Your task to perform on an android device: change your default location settings in chrome Image 0: 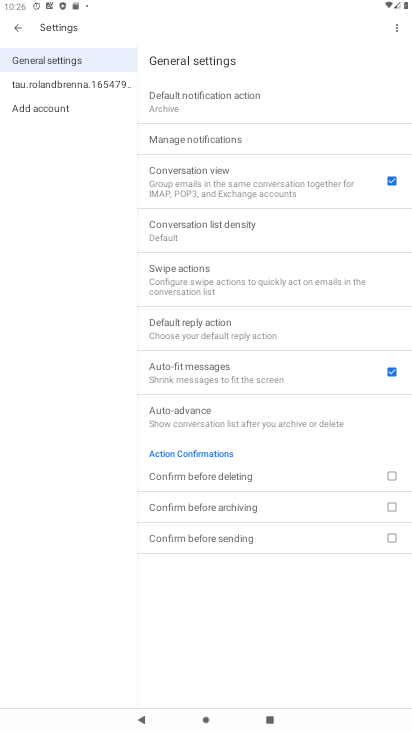
Step 0: press home button
Your task to perform on an android device: change your default location settings in chrome Image 1: 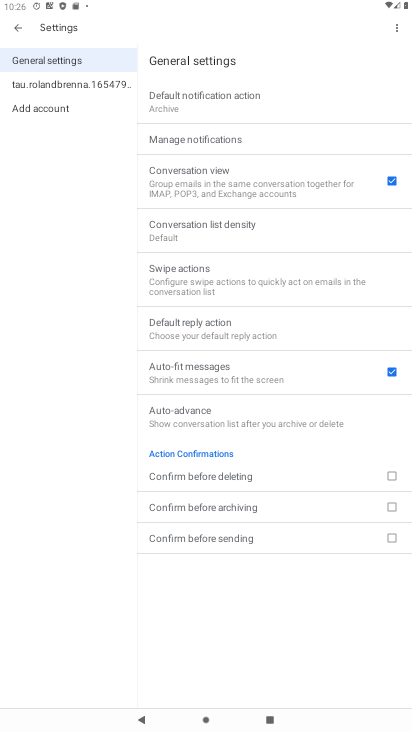
Step 1: press home button
Your task to perform on an android device: change your default location settings in chrome Image 2: 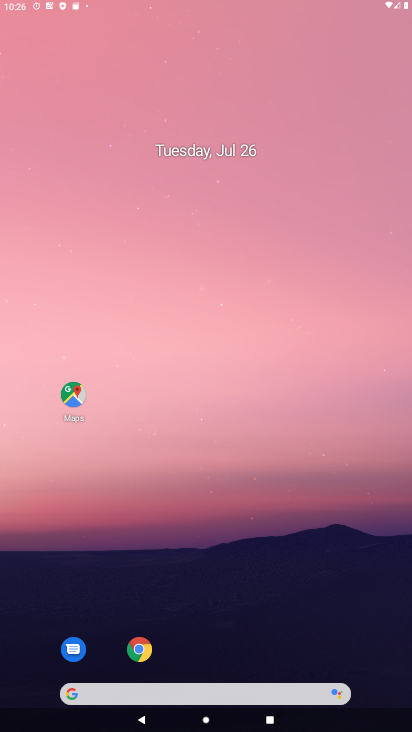
Step 2: drag from (200, 605) to (262, 119)
Your task to perform on an android device: change your default location settings in chrome Image 3: 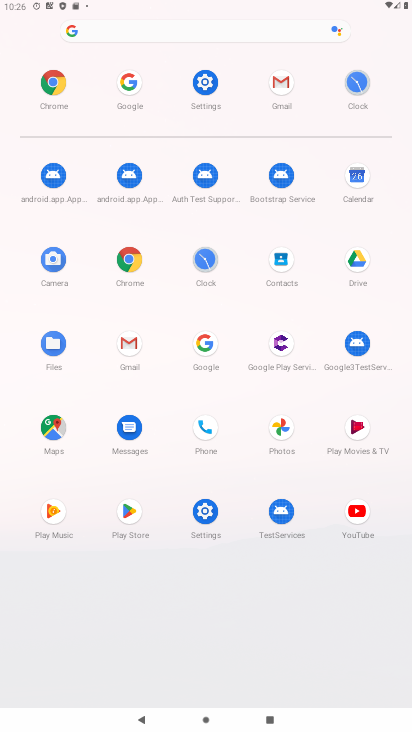
Step 3: click (125, 256)
Your task to perform on an android device: change your default location settings in chrome Image 4: 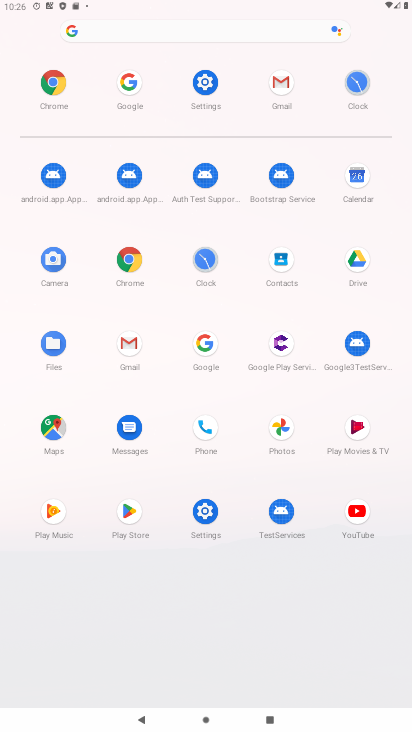
Step 4: click (125, 256)
Your task to perform on an android device: change your default location settings in chrome Image 5: 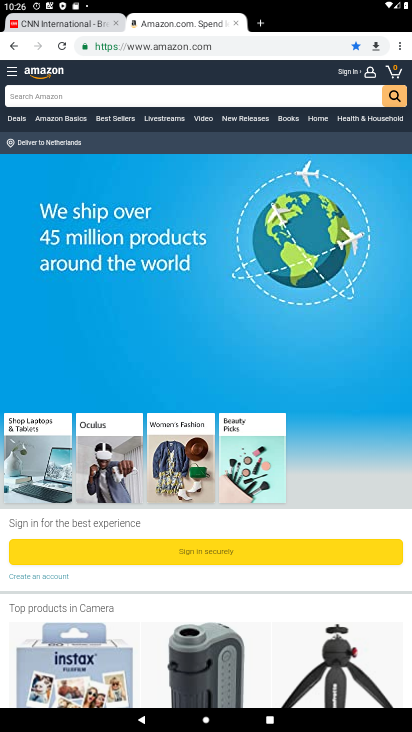
Step 5: drag from (192, 539) to (232, 227)
Your task to perform on an android device: change your default location settings in chrome Image 6: 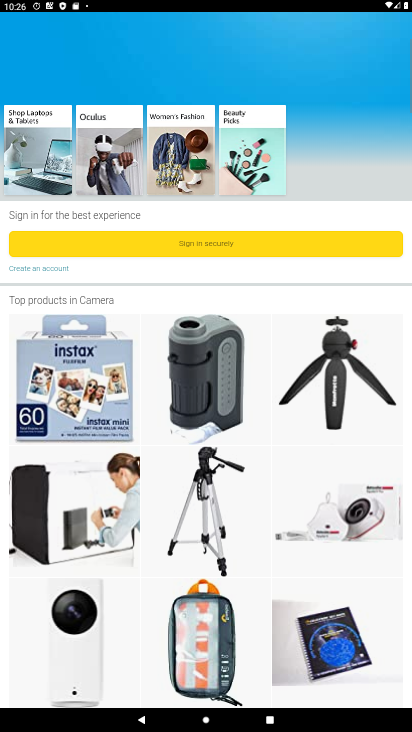
Step 6: drag from (235, 234) to (234, 720)
Your task to perform on an android device: change your default location settings in chrome Image 7: 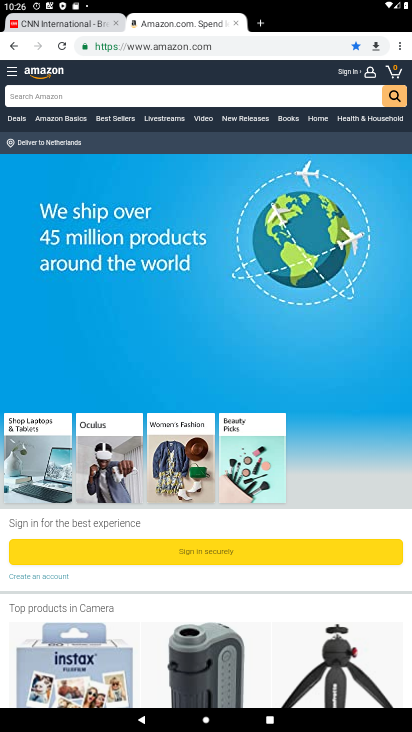
Step 7: drag from (396, 46) to (312, 309)
Your task to perform on an android device: change your default location settings in chrome Image 8: 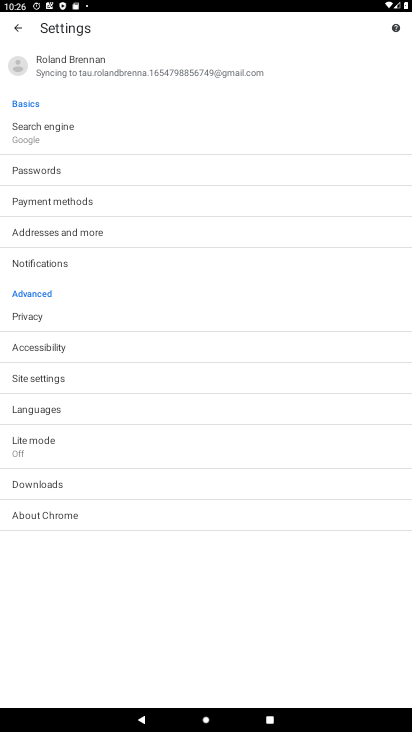
Step 8: click (90, 413)
Your task to perform on an android device: change your default location settings in chrome Image 9: 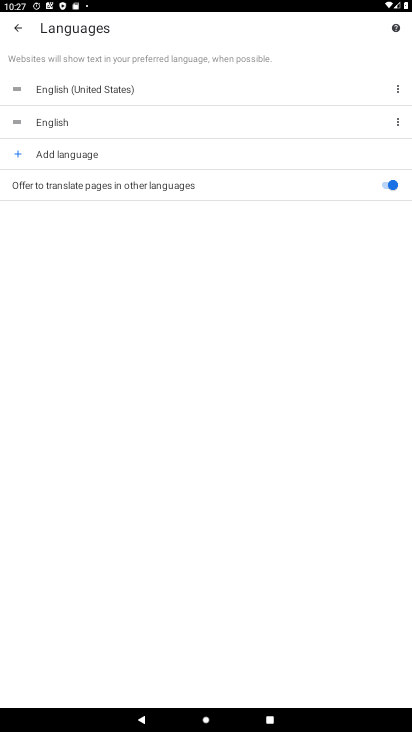
Step 9: click (389, 187)
Your task to perform on an android device: change your default location settings in chrome Image 10: 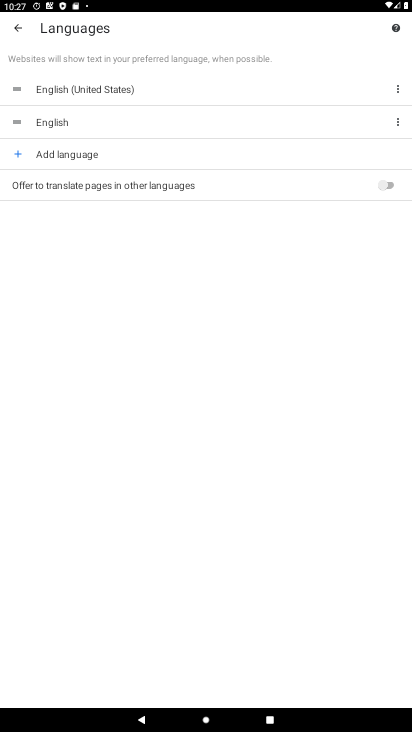
Step 10: click (389, 187)
Your task to perform on an android device: change your default location settings in chrome Image 11: 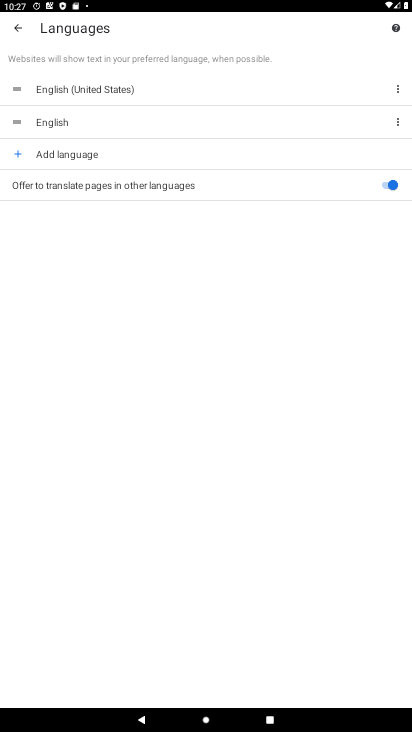
Step 11: click (20, 30)
Your task to perform on an android device: change your default location settings in chrome Image 12: 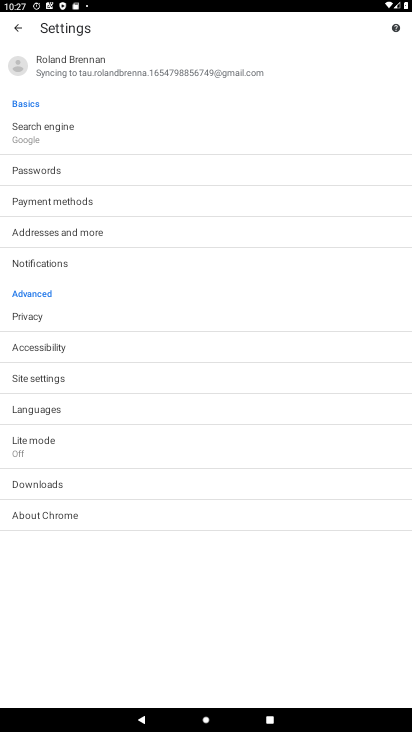
Step 12: click (59, 371)
Your task to perform on an android device: change your default location settings in chrome Image 13: 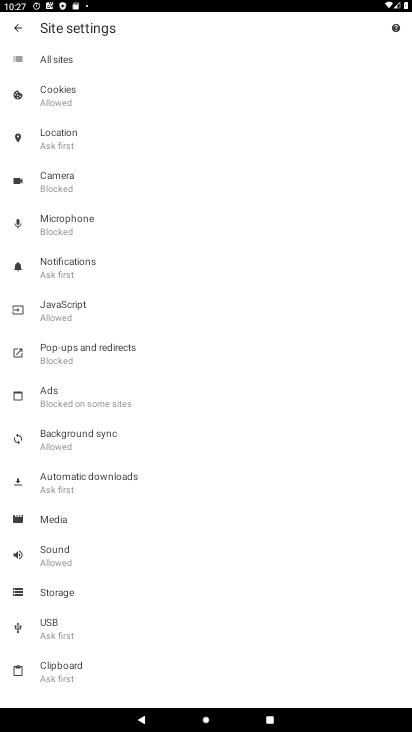
Step 13: click (76, 125)
Your task to perform on an android device: change your default location settings in chrome Image 14: 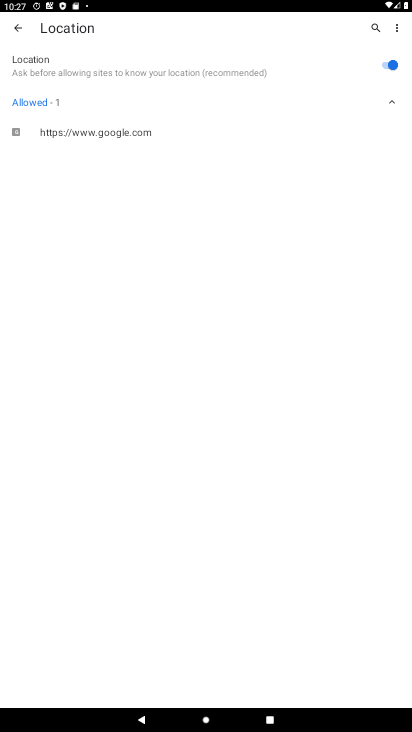
Step 14: click (380, 64)
Your task to perform on an android device: change your default location settings in chrome Image 15: 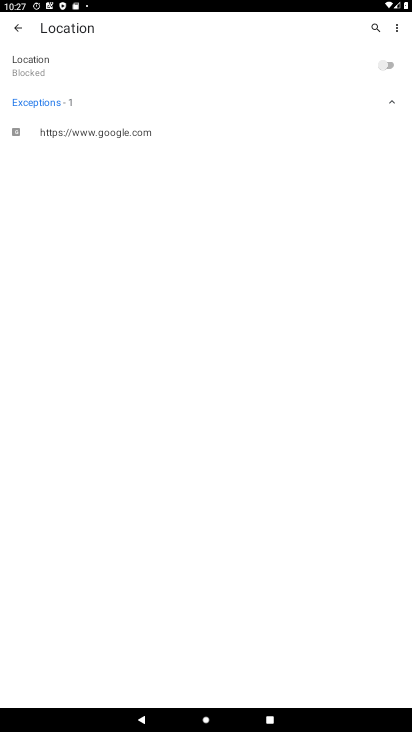
Step 15: task complete